Your task to perform on an android device: toggle wifi Image 0: 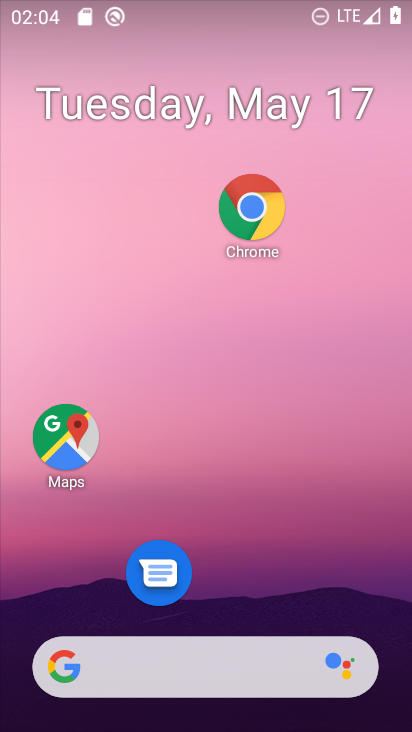
Step 0: press home button
Your task to perform on an android device: toggle wifi Image 1: 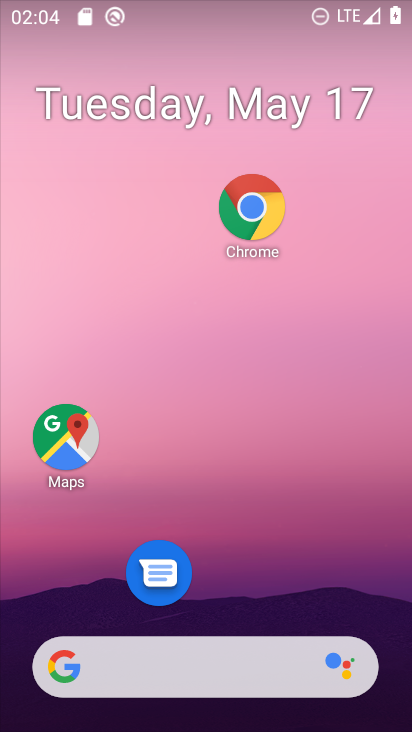
Step 1: drag from (172, 654) to (270, 38)
Your task to perform on an android device: toggle wifi Image 2: 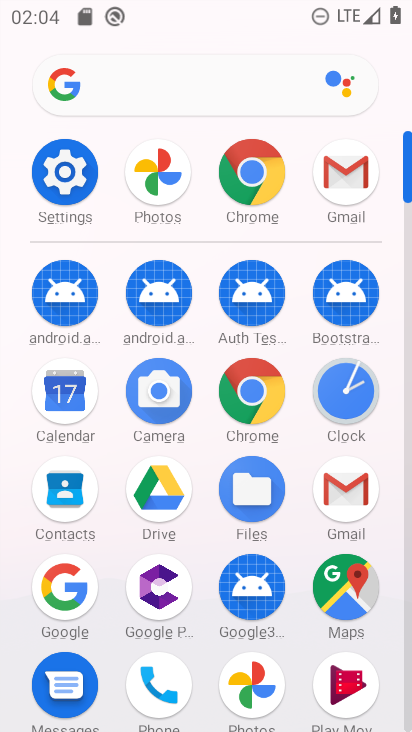
Step 2: click (60, 188)
Your task to perform on an android device: toggle wifi Image 3: 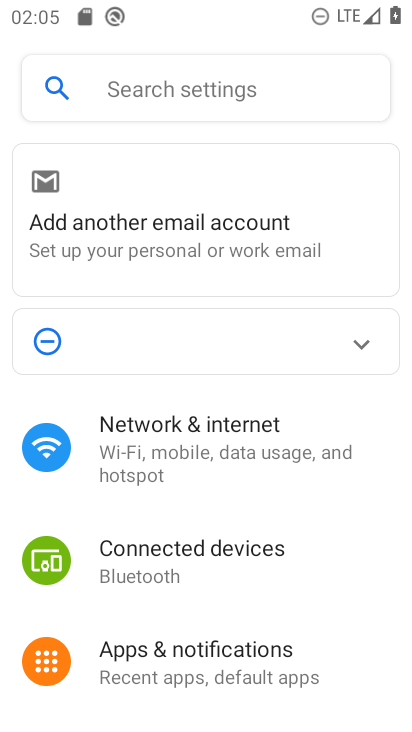
Step 3: click (195, 433)
Your task to perform on an android device: toggle wifi Image 4: 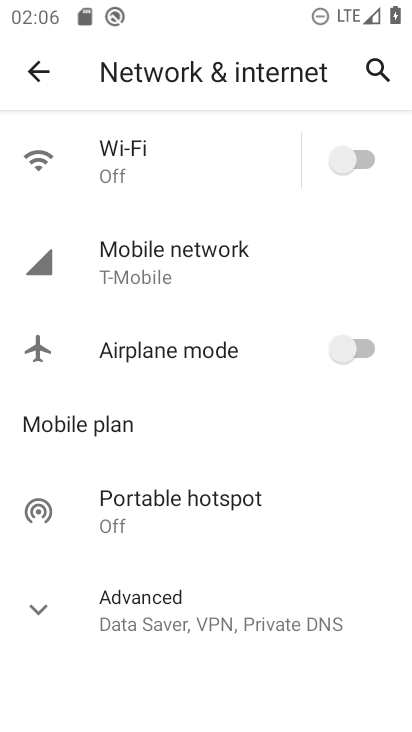
Step 4: click (369, 163)
Your task to perform on an android device: toggle wifi Image 5: 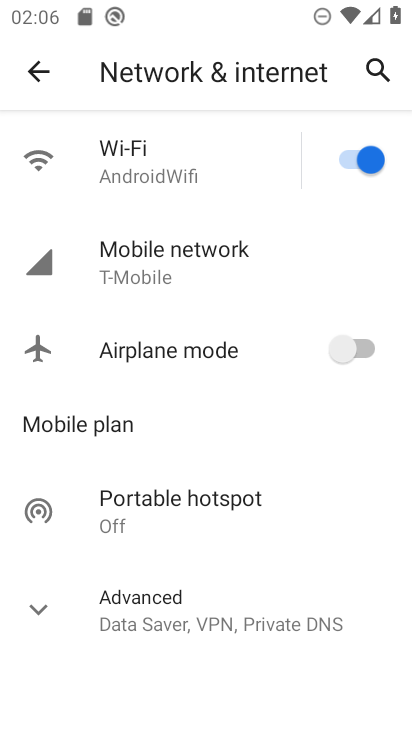
Step 5: task complete